Your task to perform on an android device: Go to notification settings Image 0: 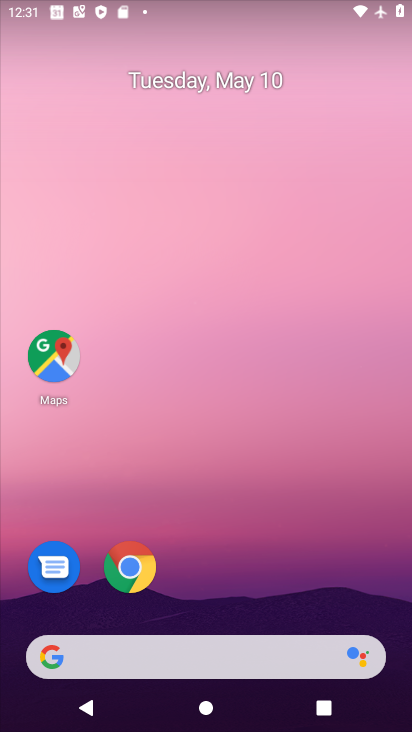
Step 0: drag from (387, 628) to (324, 362)
Your task to perform on an android device: Go to notification settings Image 1: 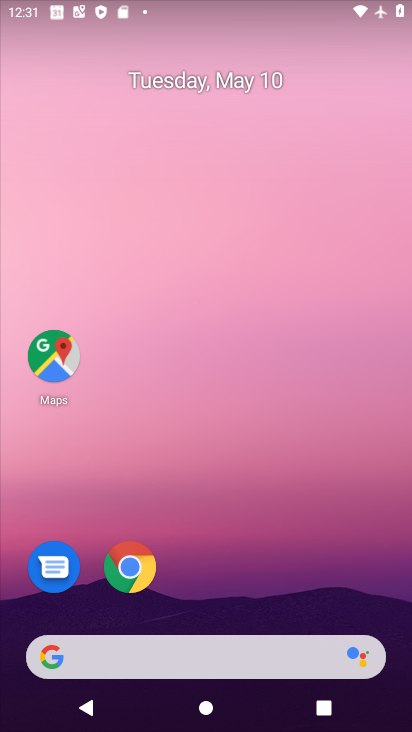
Step 1: drag from (403, 615) to (282, 68)
Your task to perform on an android device: Go to notification settings Image 2: 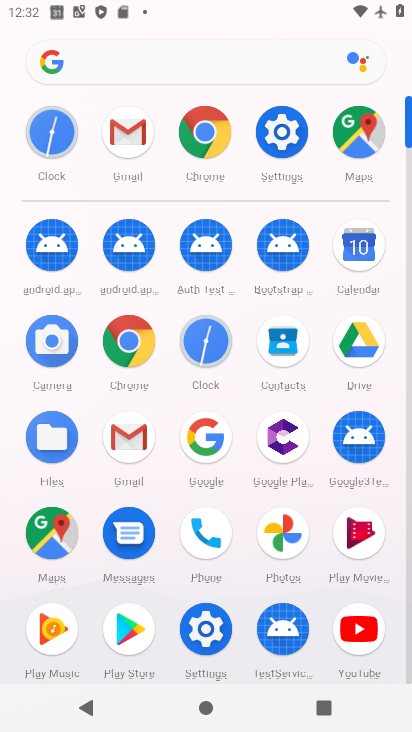
Step 2: click (207, 611)
Your task to perform on an android device: Go to notification settings Image 3: 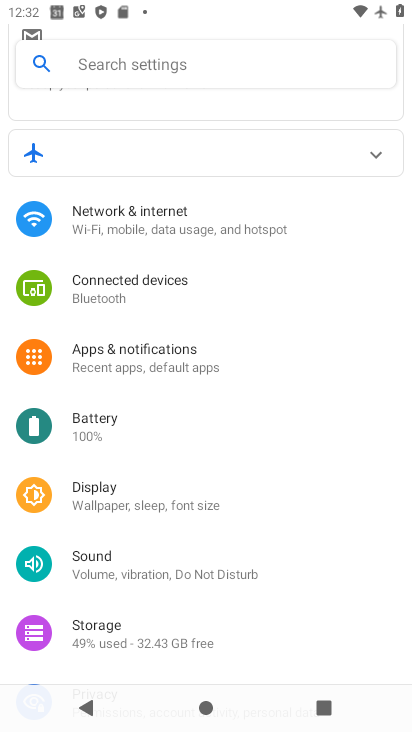
Step 3: click (135, 358)
Your task to perform on an android device: Go to notification settings Image 4: 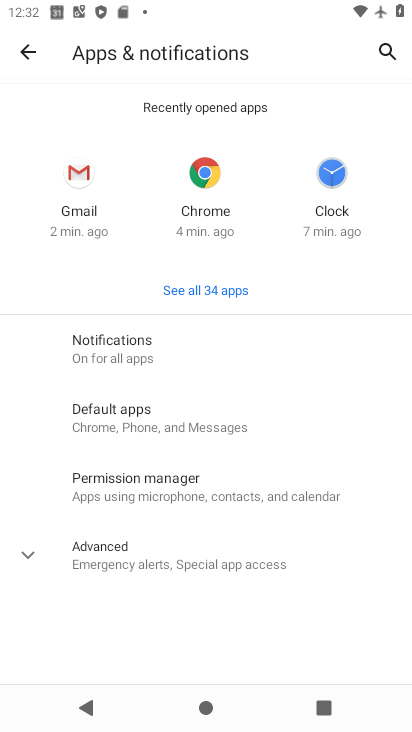
Step 4: click (135, 358)
Your task to perform on an android device: Go to notification settings Image 5: 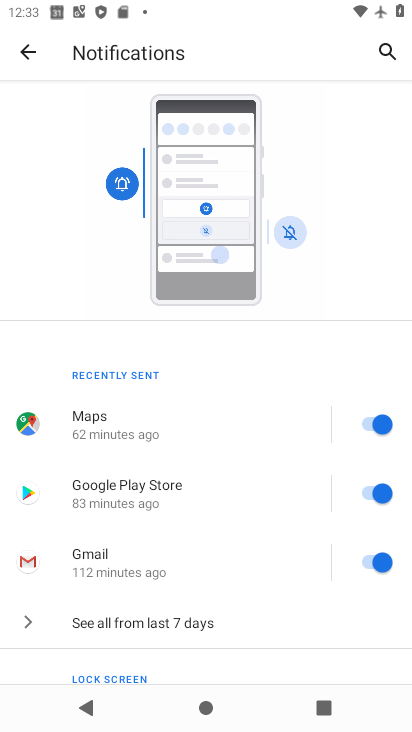
Step 5: task complete